Your task to perform on an android device: Open Google Chrome and click the shortcut for Amazon.com Image 0: 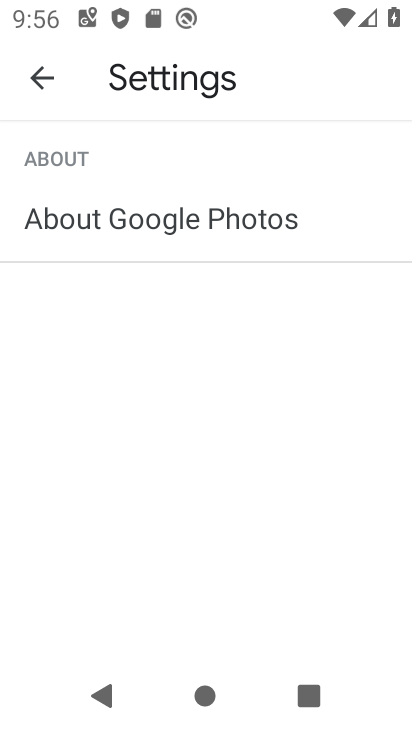
Step 0: press back button
Your task to perform on an android device: Open Google Chrome and click the shortcut for Amazon.com Image 1: 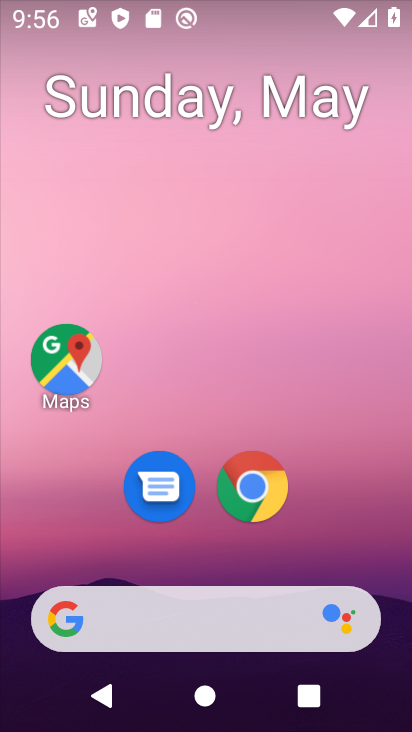
Step 1: click (253, 488)
Your task to perform on an android device: Open Google Chrome and click the shortcut for Amazon.com Image 2: 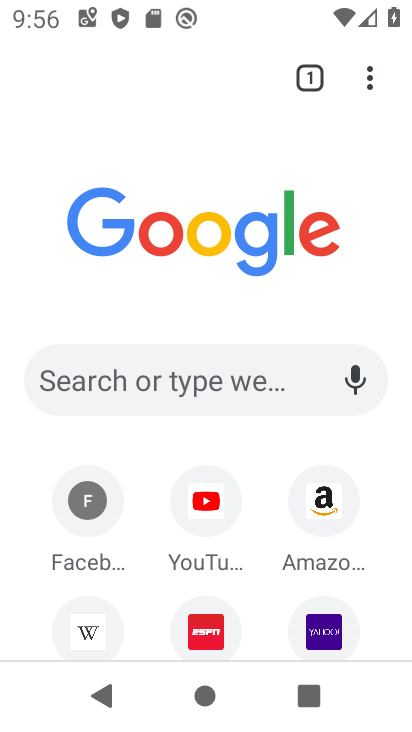
Step 2: click (322, 498)
Your task to perform on an android device: Open Google Chrome and click the shortcut for Amazon.com Image 3: 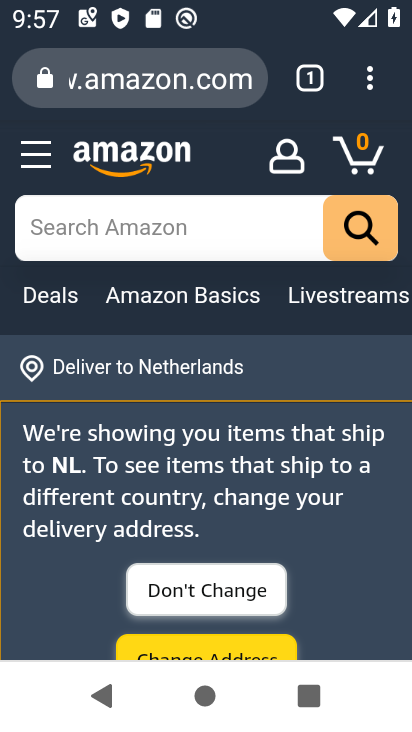
Step 3: click (372, 81)
Your task to perform on an android device: Open Google Chrome and click the shortcut for Amazon.com Image 4: 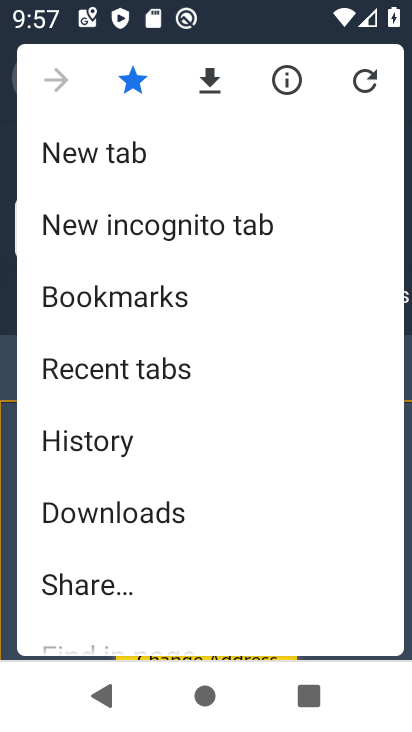
Step 4: drag from (164, 549) to (237, 404)
Your task to perform on an android device: Open Google Chrome and click the shortcut for Amazon.com Image 5: 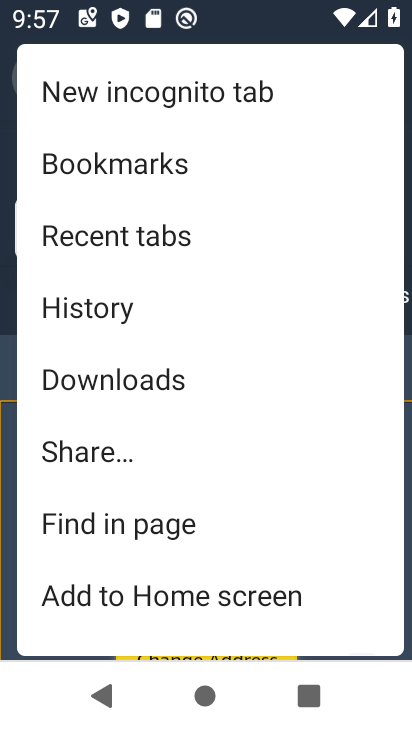
Step 5: drag from (203, 550) to (263, 442)
Your task to perform on an android device: Open Google Chrome and click the shortcut for Amazon.com Image 6: 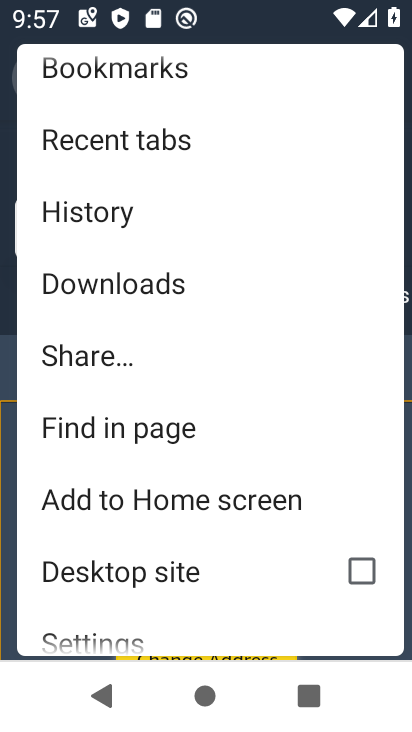
Step 6: click (230, 501)
Your task to perform on an android device: Open Google Chrome and click the shortcut for Amazon.com Image 7: 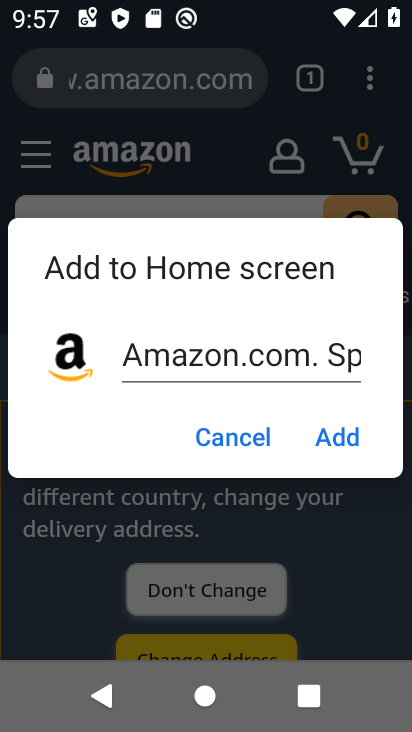
Step 7: click (330, 434)
Your task to perform on an android device: Open Google Chrome and click the shortcut for Amazon.com Image 8: 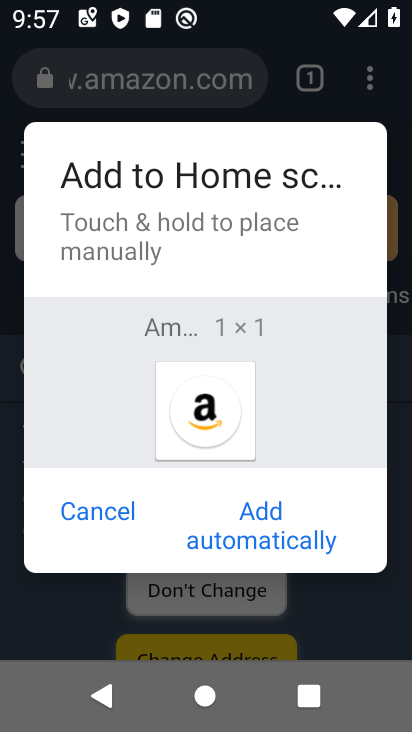
Step 8: click (281, 504)
Your task to perform on an android device: Open Google Chrome and click the shortcut for Amazon.com Image 9: 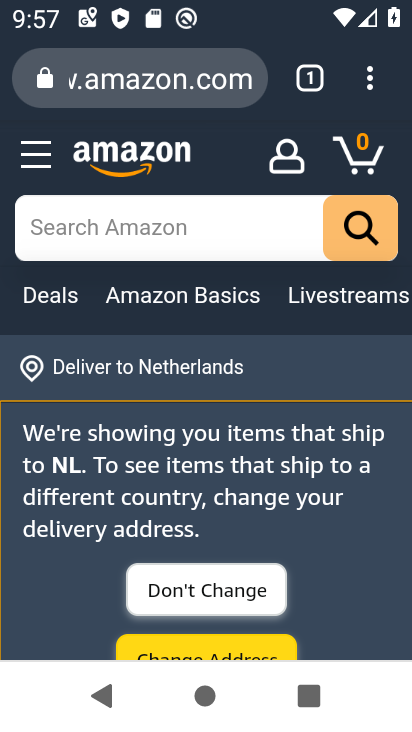
Step 9: task complete